Your task to perform on an android device: Search for vegetarian restaurants on Maps Image 0: 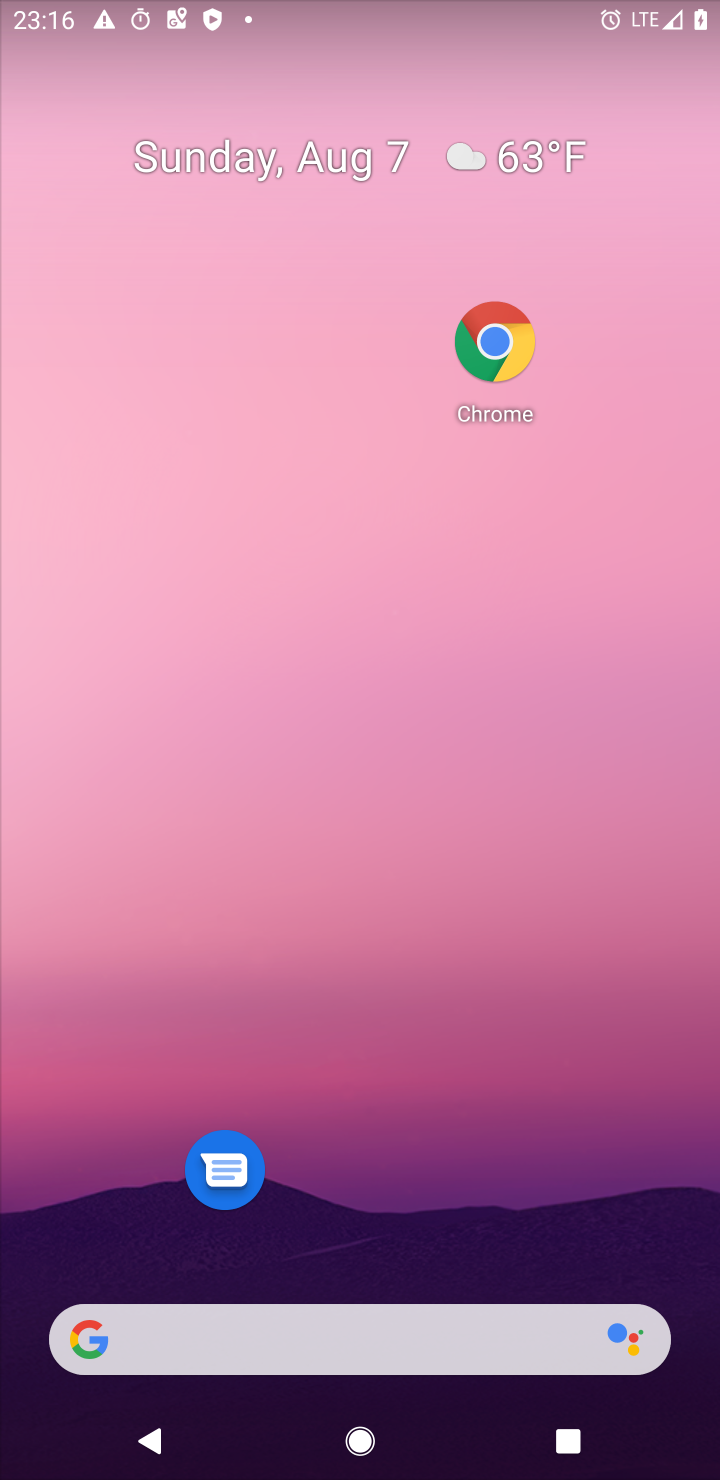
Step 0: drag from (443, 1345) to (513, 17)
Your task to perform on an android device: Search for vegetarian restaurants on Maps Image 1: 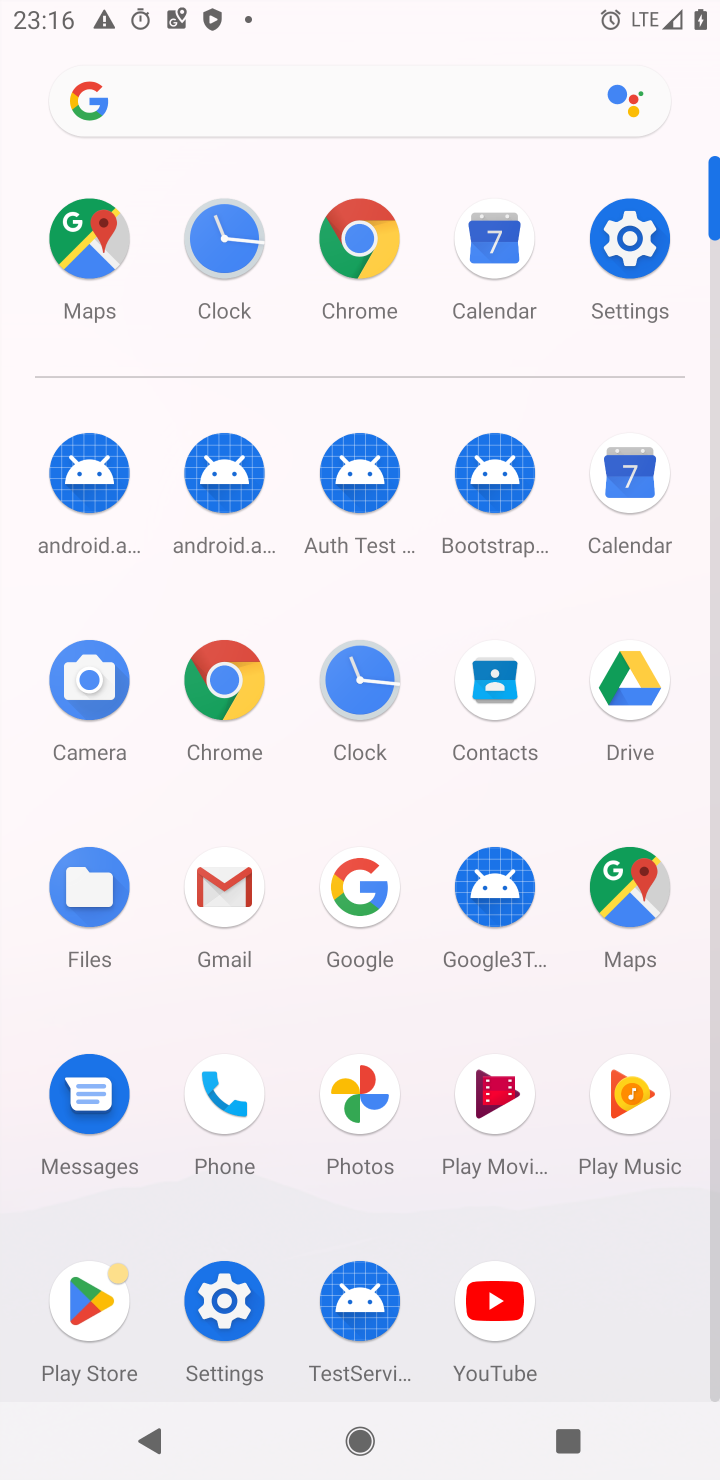
Step 1: click (616, 897)
Your task to perform on an android device: Search for vegetarian restaurants on Maps Image 2: 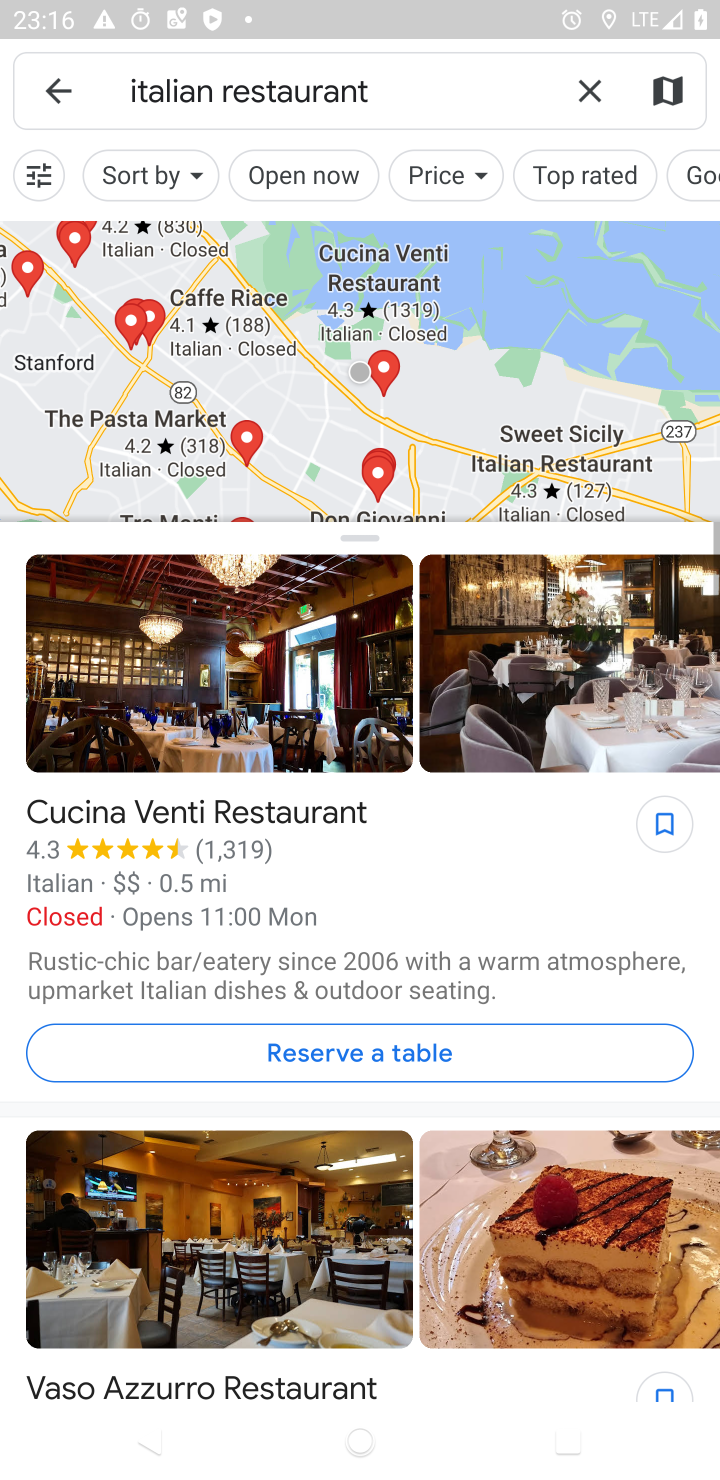
Step 2: press back button
Your task to perform on an android device: Search for vegetarian restaurants on Maps Image 3: 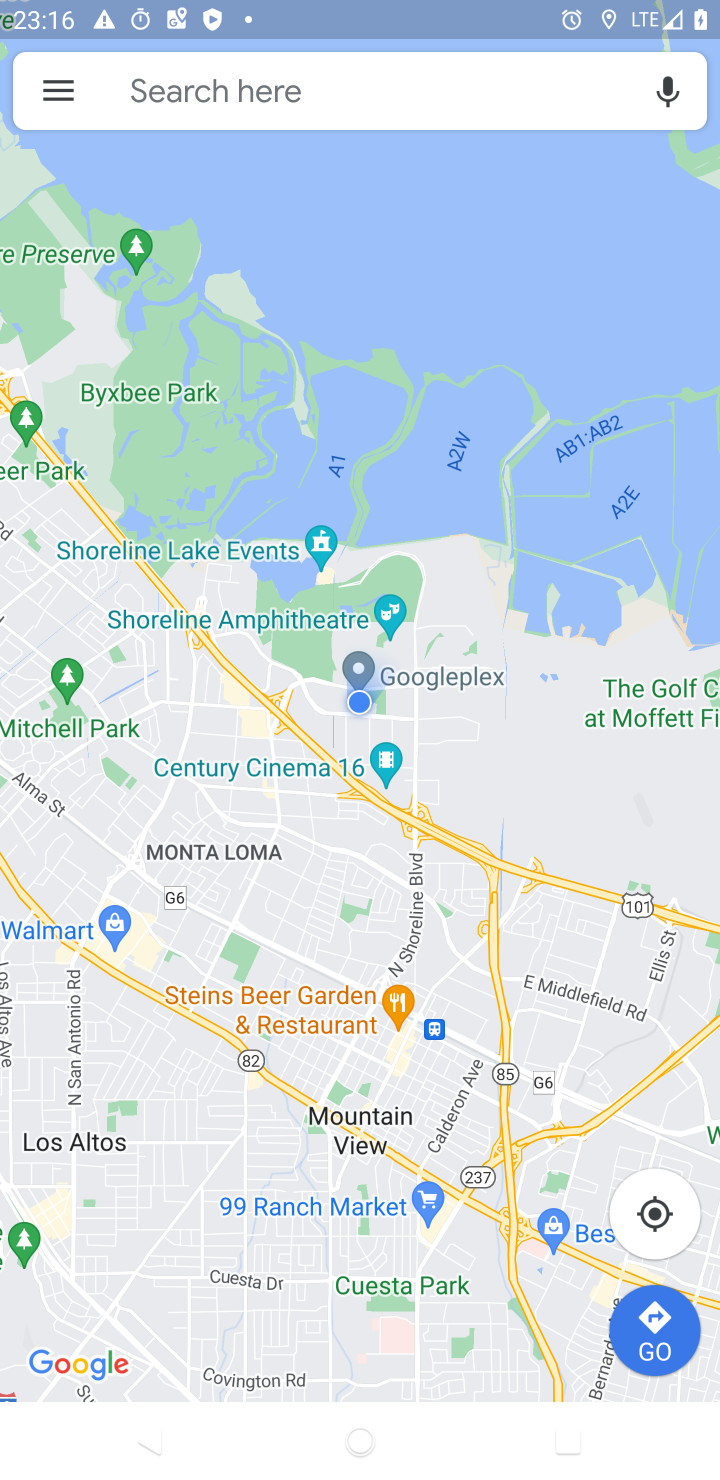
Step 3: click (246, 66)
Your task to perform on an android device: Search for vegetarian restaurants on Maps Image 4: 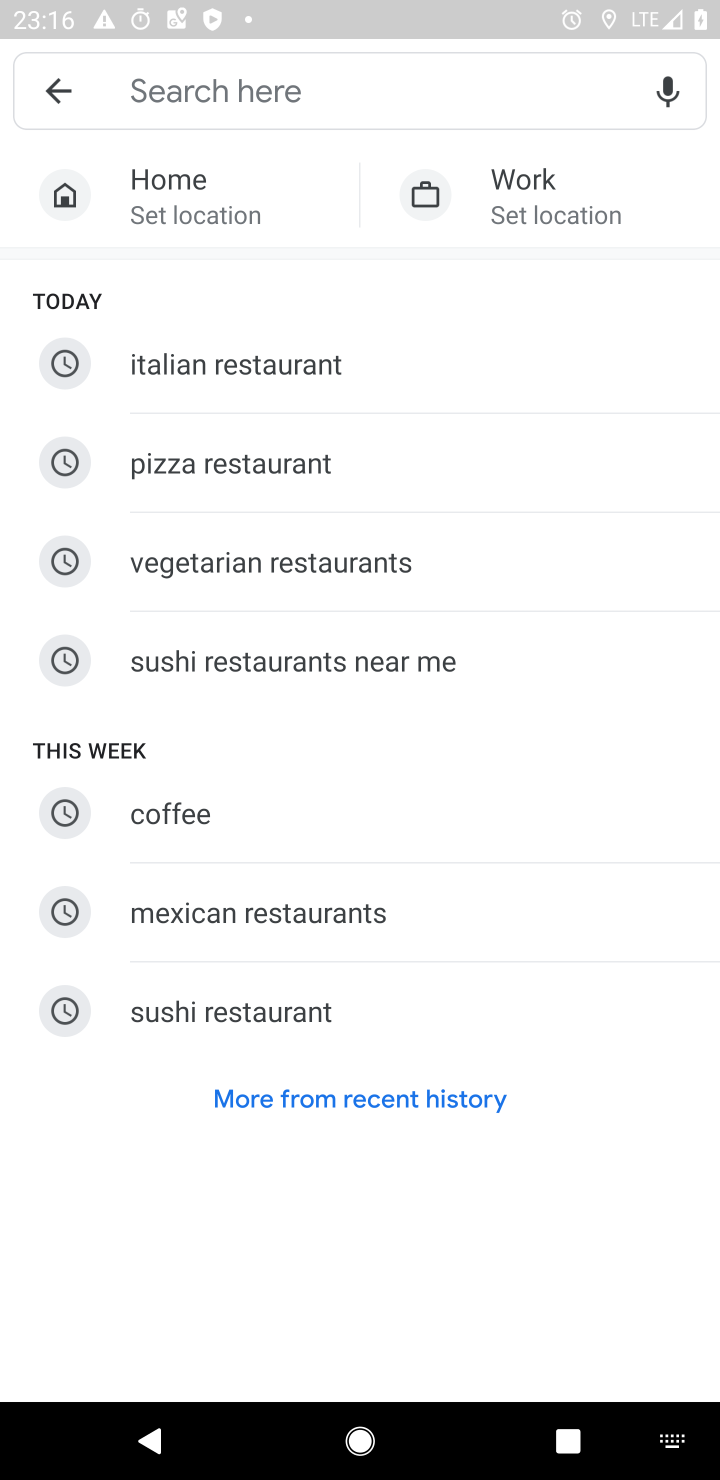
Step 4: click (229, 562)
Your task to perform on an android device: Search for vegetarian restaurants on Maps Image 5: 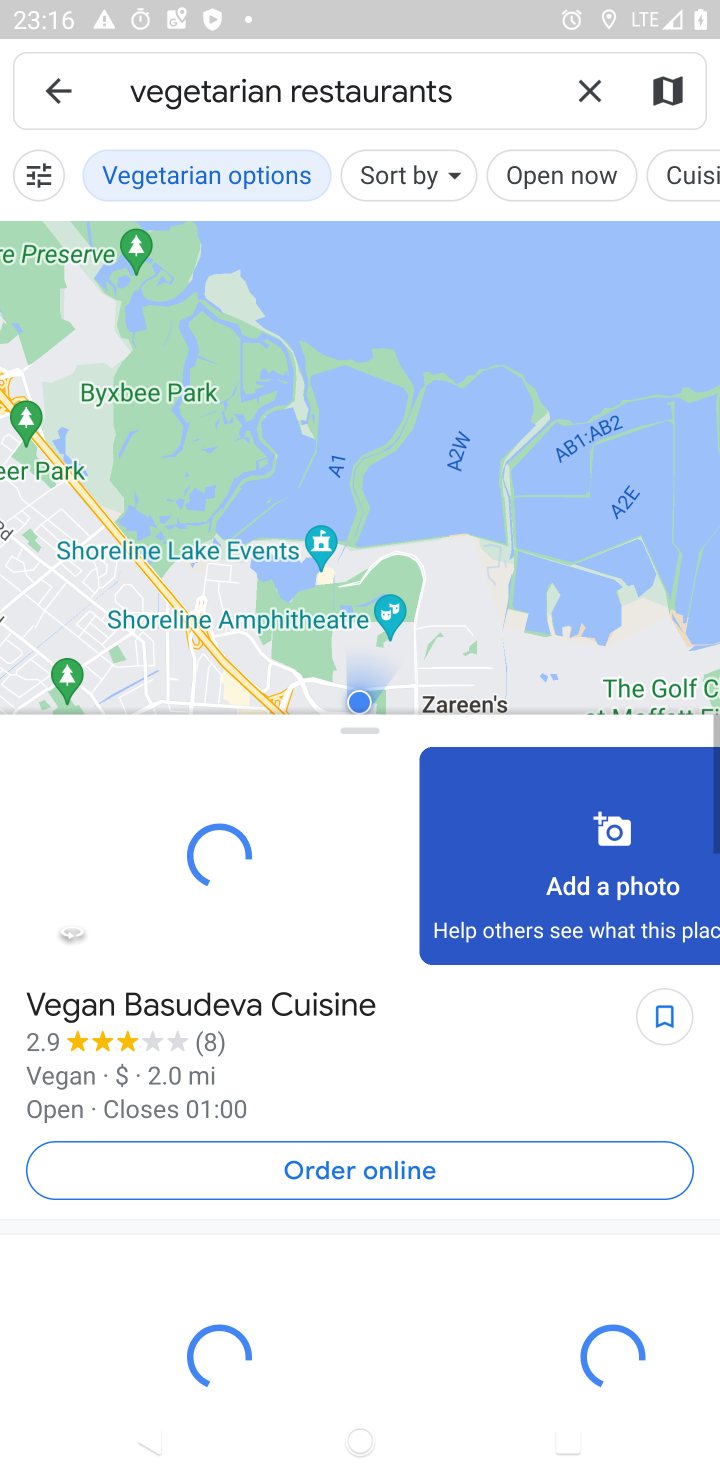
Step 5: task complete